Your task to perform on an android device: check data usage Image 0: 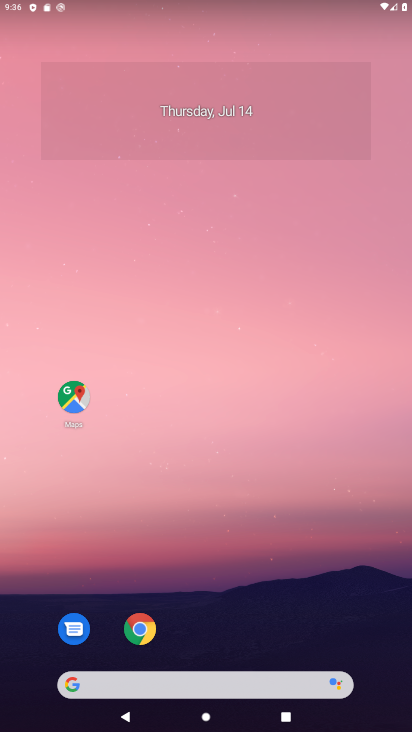
Step 0: drag from (213, 654) to (213, 157)
Your task to perform on an android device: check data usage Image 1: 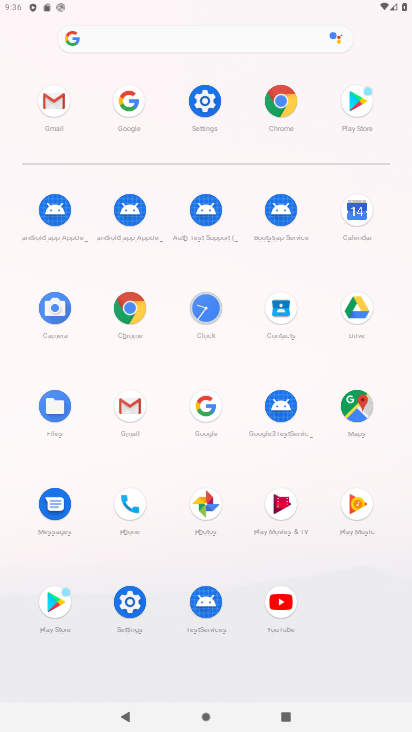
Step 1: click (131, 605)
Your task to perform on an android device: check data usage Image 2: 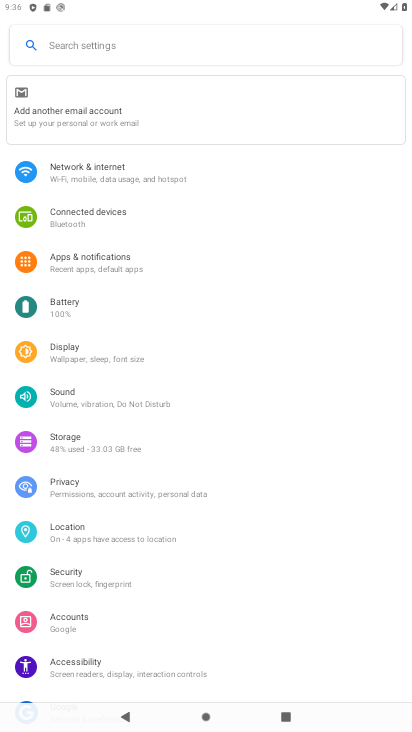
Step 2: click (97, 448)
Your task to perform on an android device: check data usage Image 3: 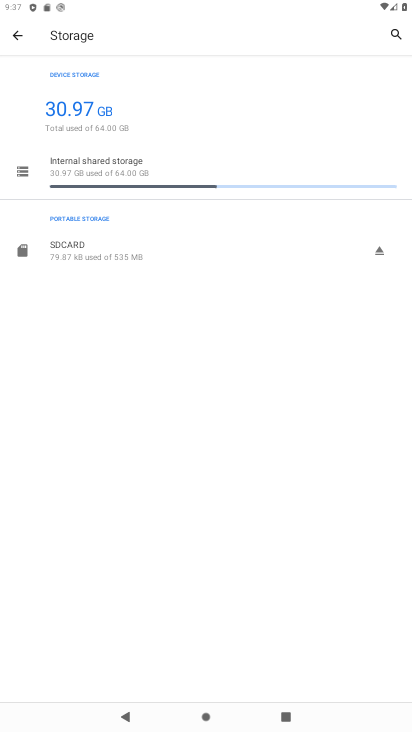
Step 3: task complete